Your task to perform on an android device: When is my next appointment? Image 0: 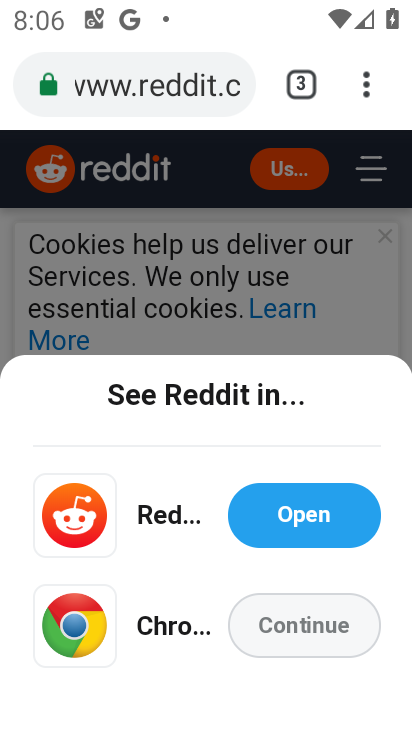
Step 0: press home button
Your task to perform on an android device: When is my next appointment? Image 1: 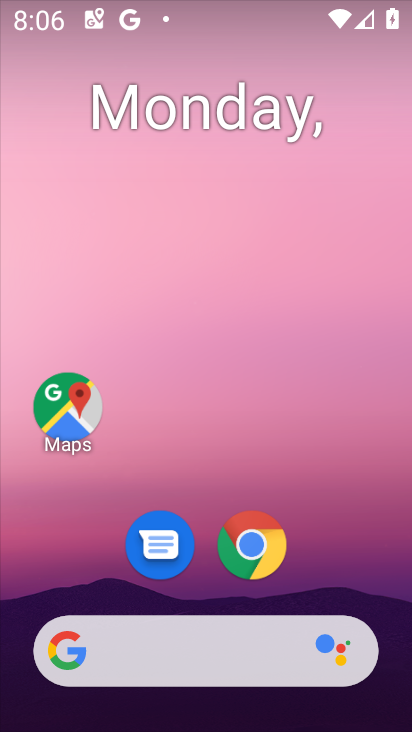
Step 1: drag from (194, 638) to (255, 4)
Your task to perform on an android device: When is my next appointment? Image 2: 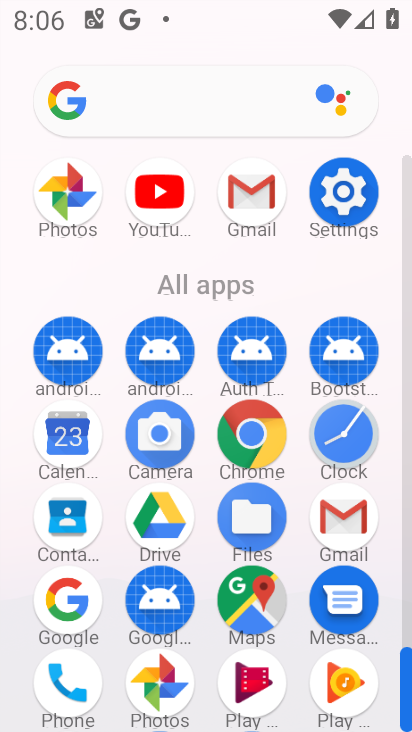
Step 2: click (78, 443)
Your task to perform on an android device: When is my next appointment? Image 3: 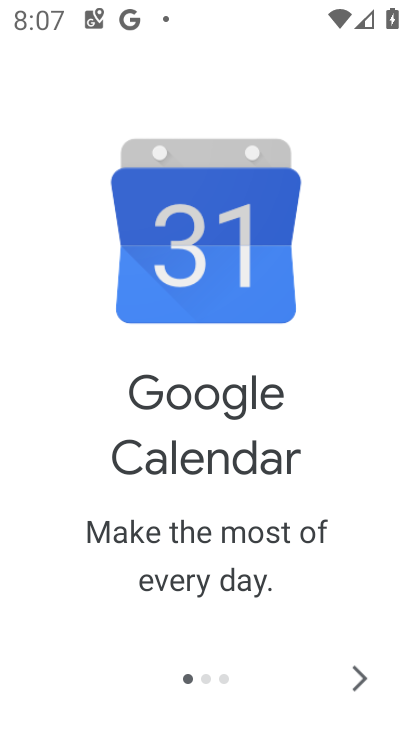
Step 3: click (356, 669)
Your task to perform on an android device: When is my next appointment? Image 4: 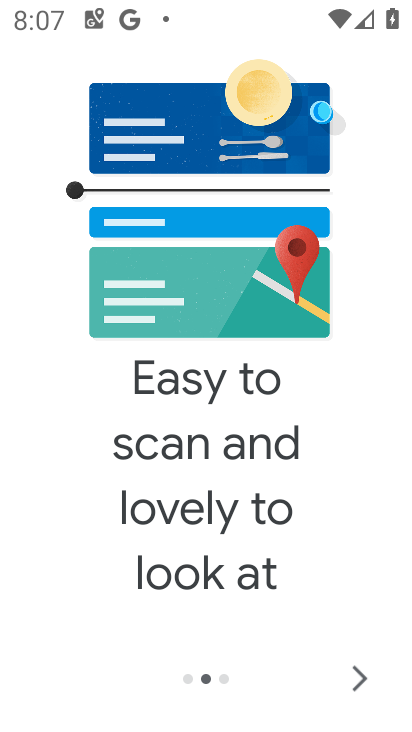
Step 4: click (356, 669)
Your task to perform on an android device: When is my next appointment? Image 5: 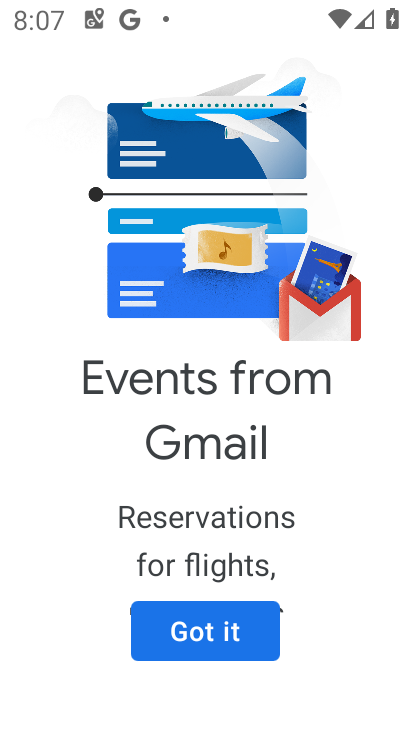
Step 5: click (253, 636)
Your task to perform on an android device: When is my next appointment? Image 6: 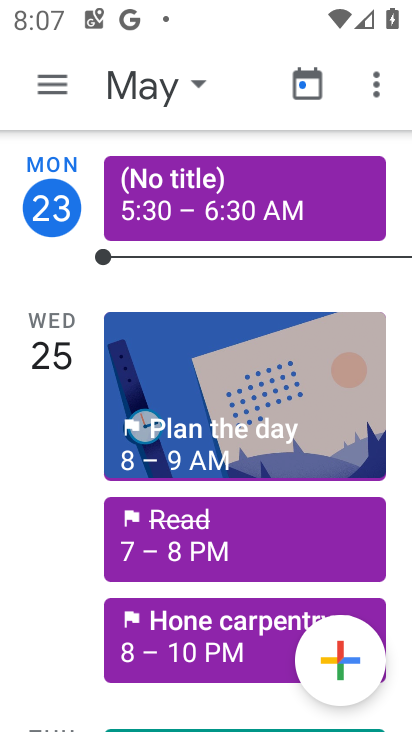
Step 6: click (190, 213)
Your task to perform on an android device: When is my next appointment? Image 7: 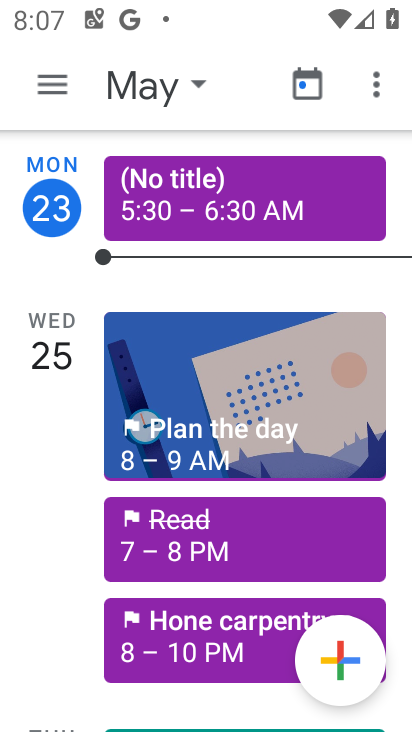
Step 7: click (213, 207)
Your task to perform on an android device: When is my next appointment? Image 8: 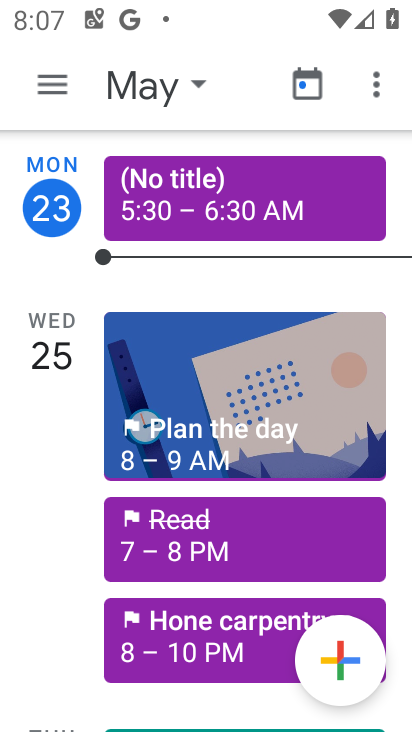
Step 8: click (173, 197)
Your task to perform on an android device: When is my next appointment? Image 9: 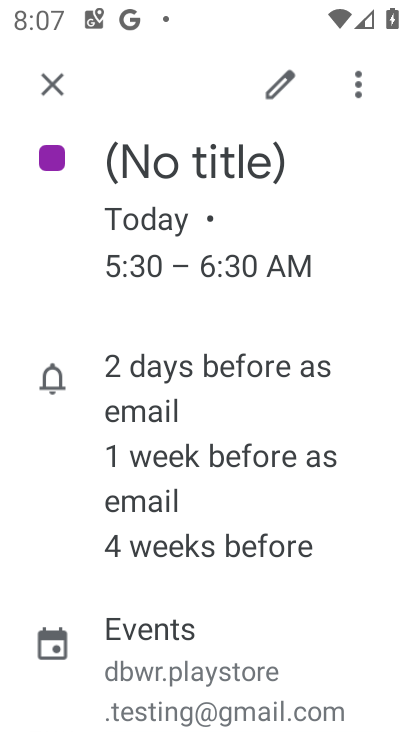
Step 9: task complete